Your task to perform on an android device: Open Youtube and go to "Your channel" Image 0: 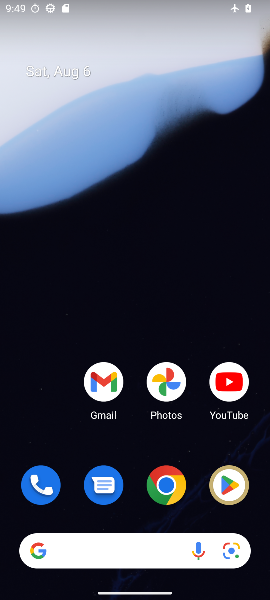
Step 0: drag from (142, 440) to (197, 125)
Your task to perform on an android device: Open Youtube and go to "Your channel" Image 1: 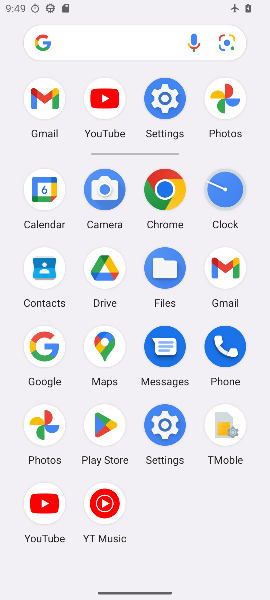
Step 1: click (53, 497)
Your task to perform on an android device: Open Youtube and go to "Your channel" Image 2: 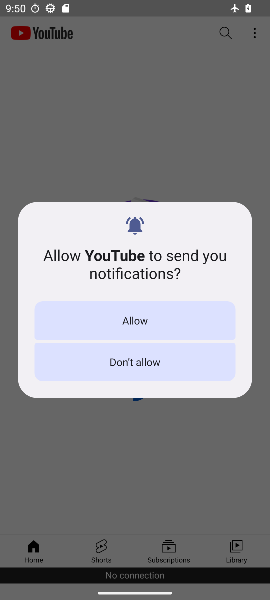
Step 2: click (138, 357)
Your task to perform on an android device: Open Youtube and go to "Your channel" Image 3: 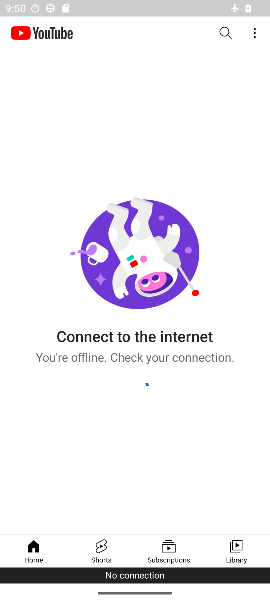
Step 3: click (179, 559)
Your task to perform on an android device: Open Youtube and go to "Your channel" Image 4: 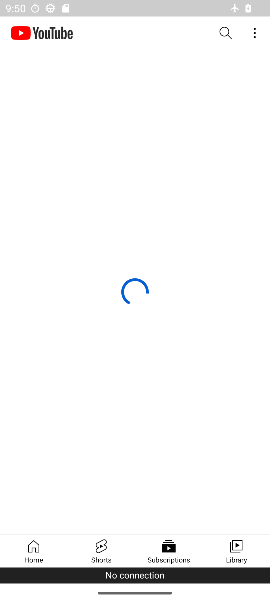
Step 4: task complete